Your task to perform on an android device: uninstall "Contacts" Image 0: 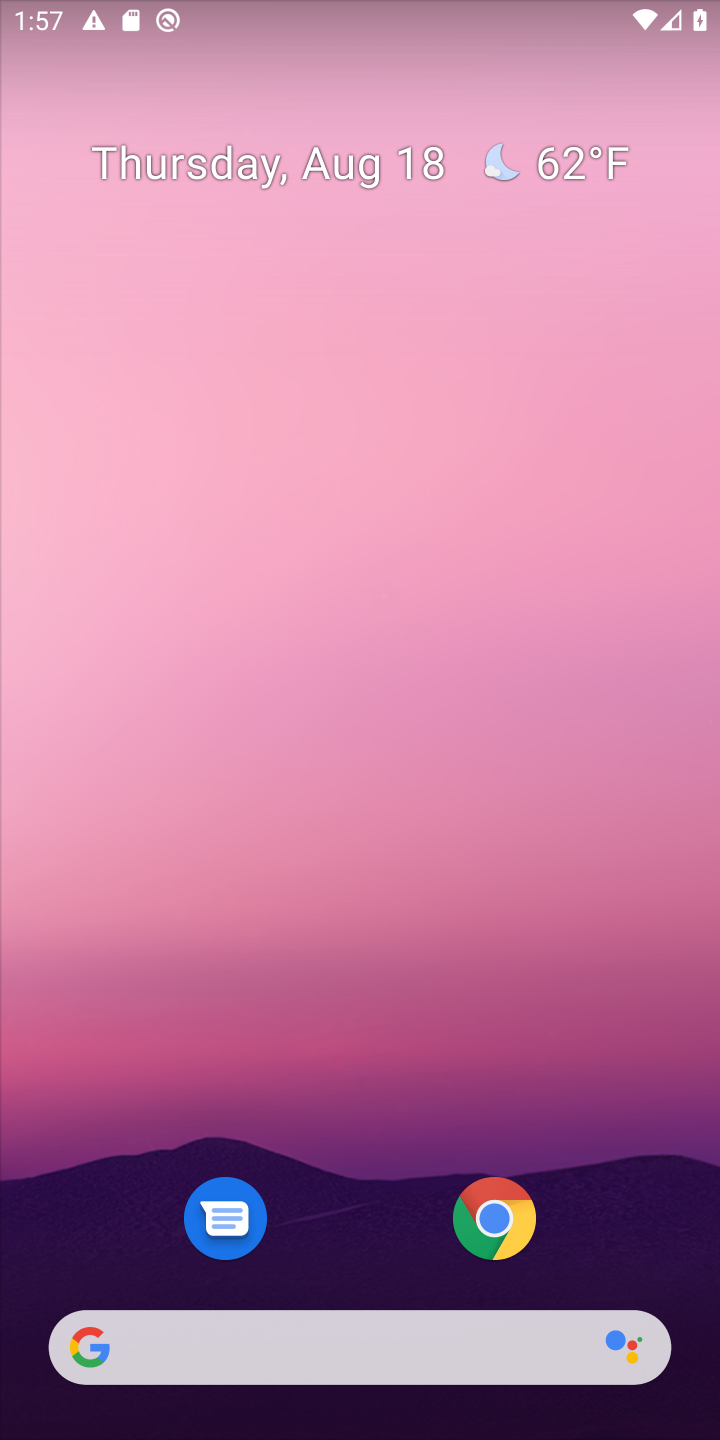
Step 0: drag from (373, 1194) to (377, 286)
Your task to perform on an android device: uninstall "Contacts" Image 1: 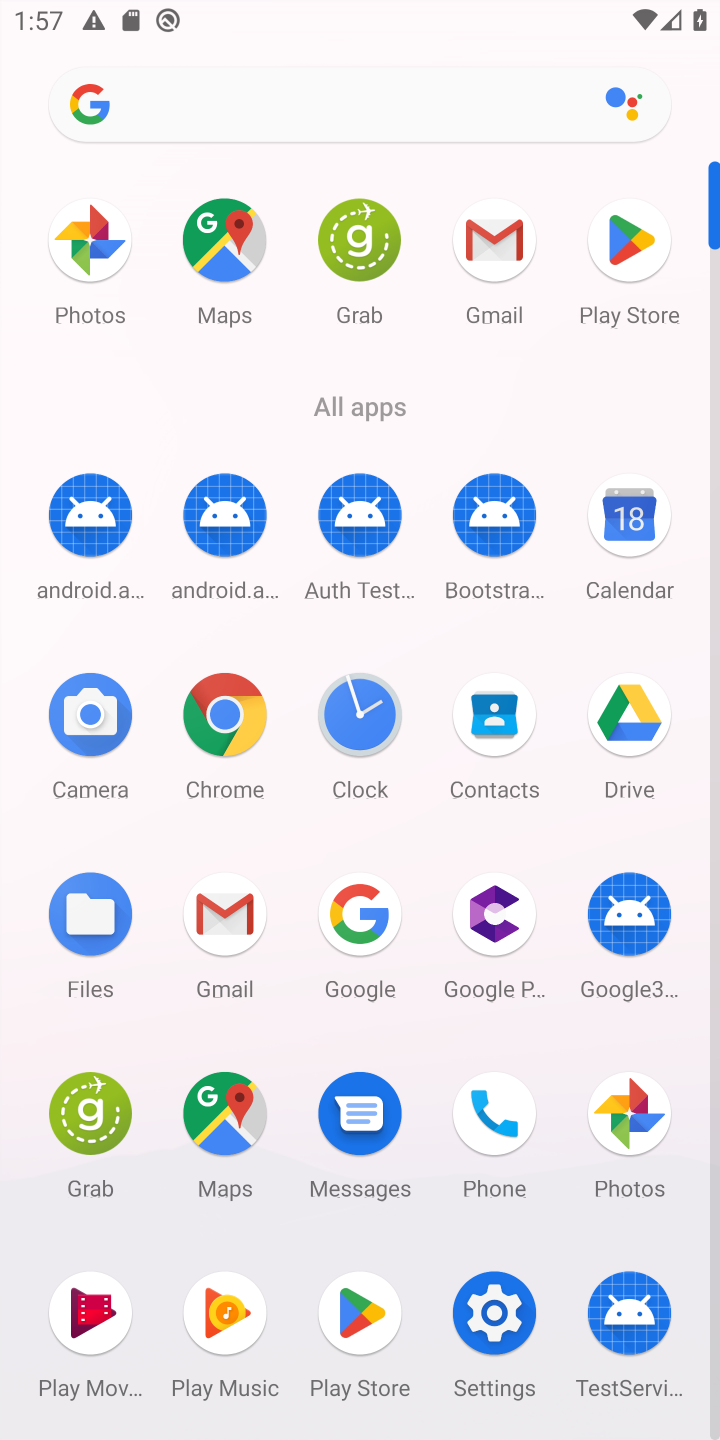
Step 1: click (630, 281)
Your task to perform on an android device: uninstall "Contacts" Image 2: 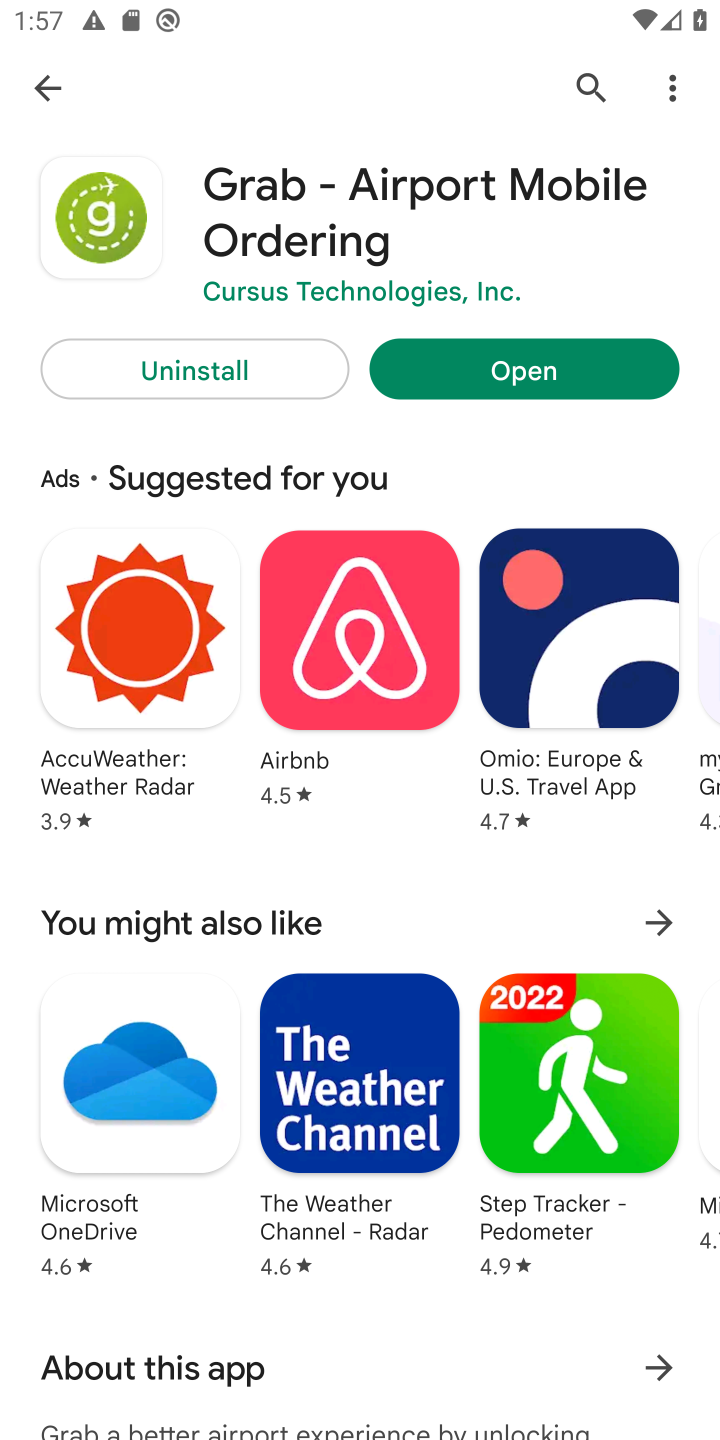
Step 2: click (581, 76)
Your task to perform on an android device: uninstall "Contacts" Image 3: 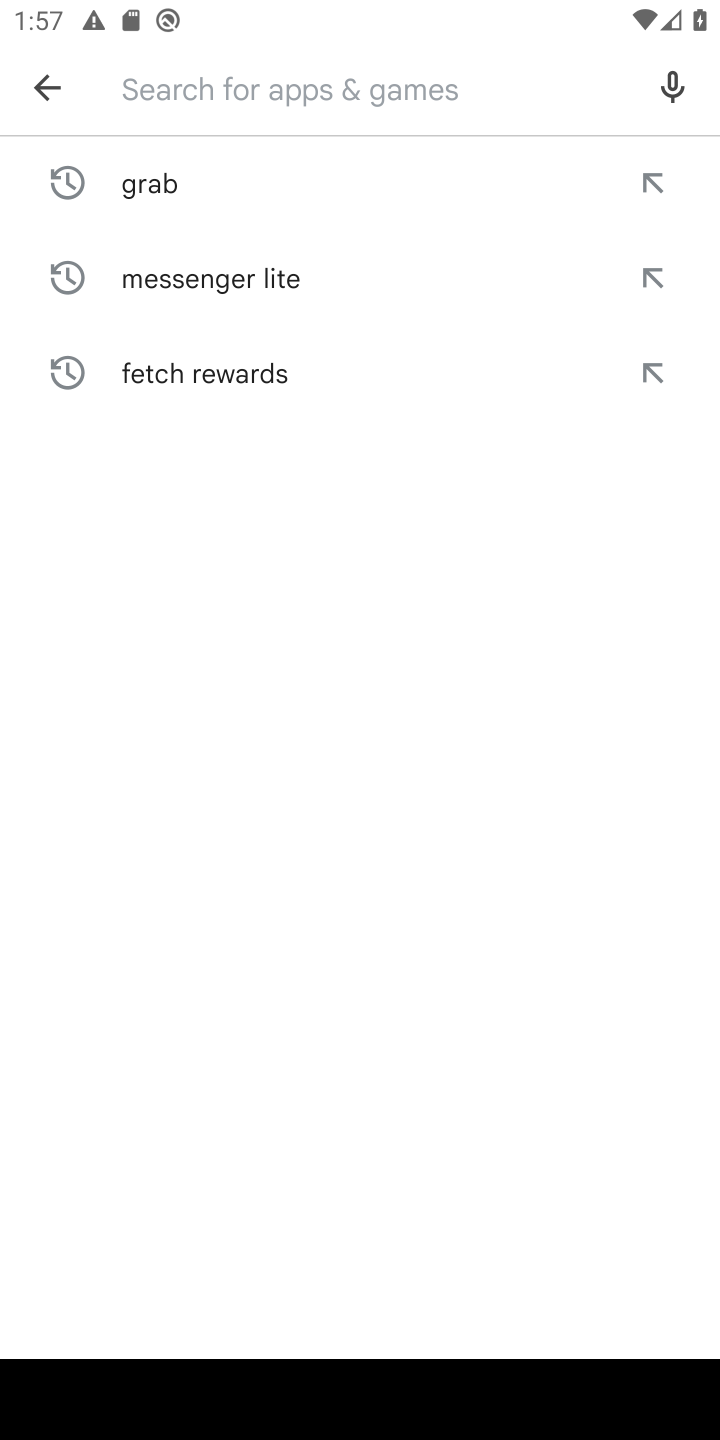
Step 3: type "Contacts"
Your task to perform on an android device: uninstall "Contacts" Image 4: 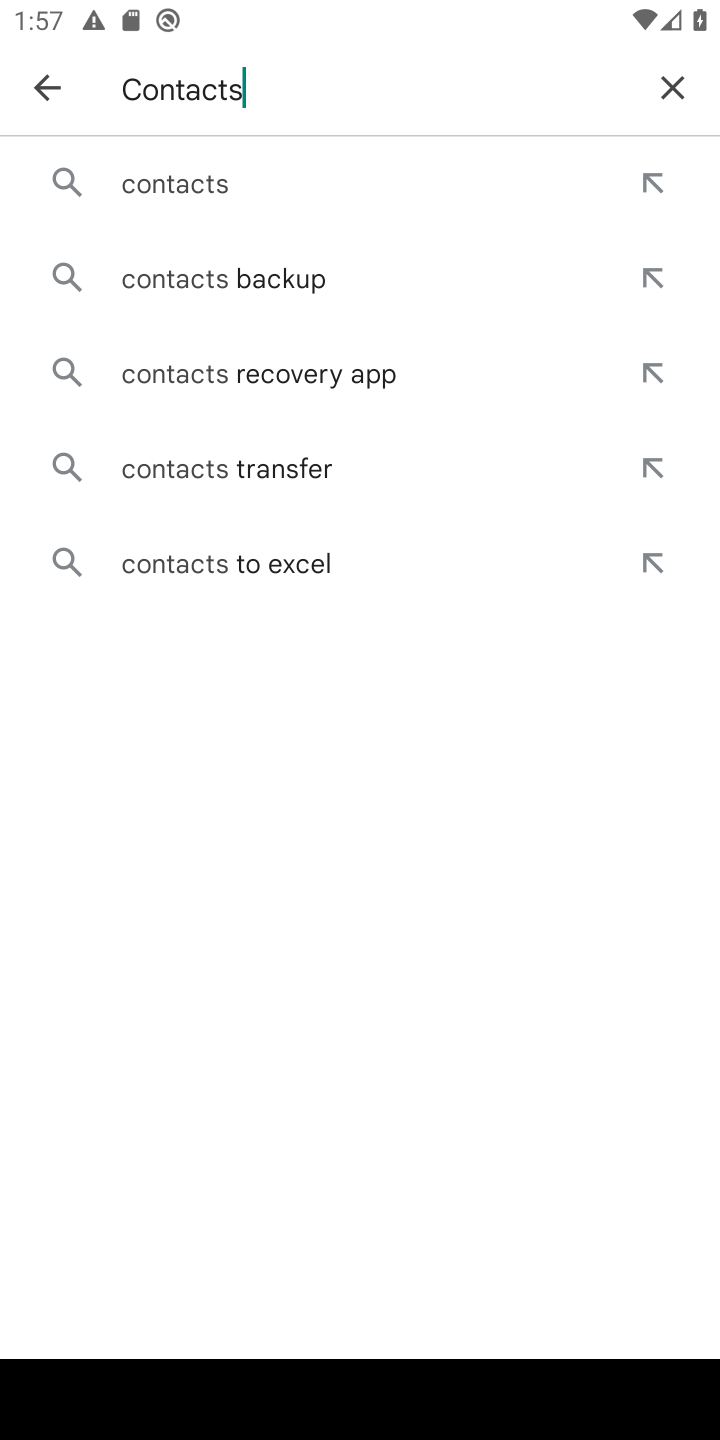
Step 4: click (169, 183)
Your task to perform on an android device: uninstall "Contacts" Image 5: 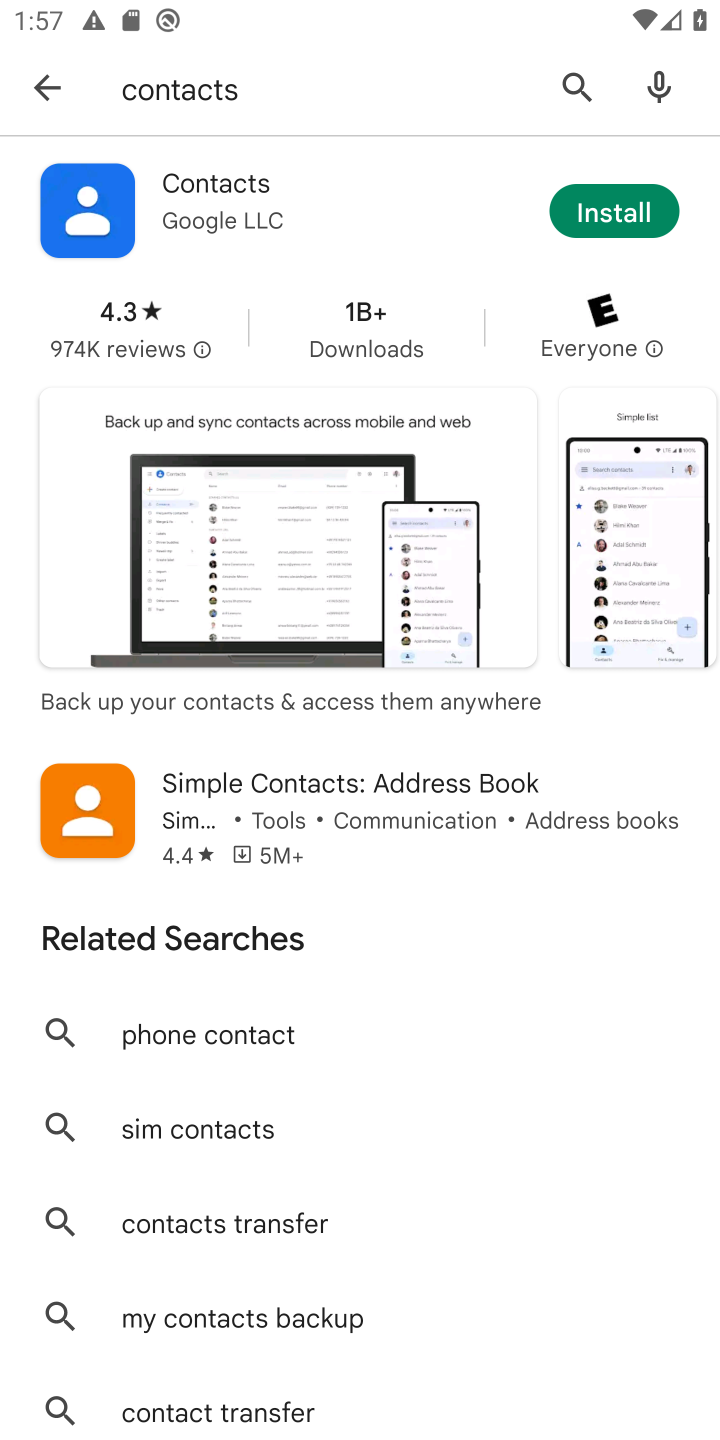
Step 5: task complete